Your task to perform on an android device: toggle improve location accuracy Image 0: 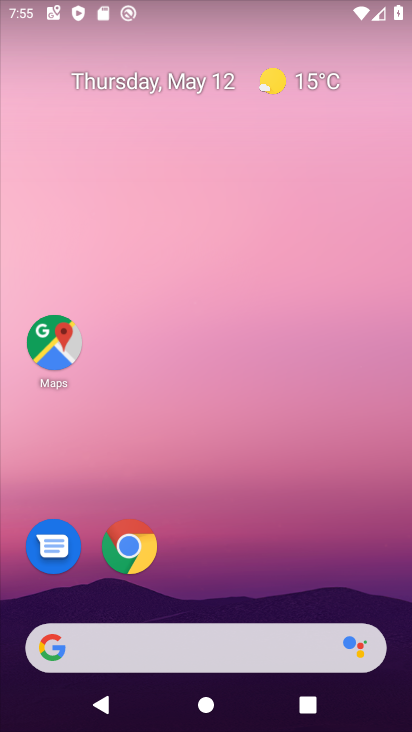
Step 0: press home button
Your task to perform on an android device: toggle improve location accuracy Image 1: 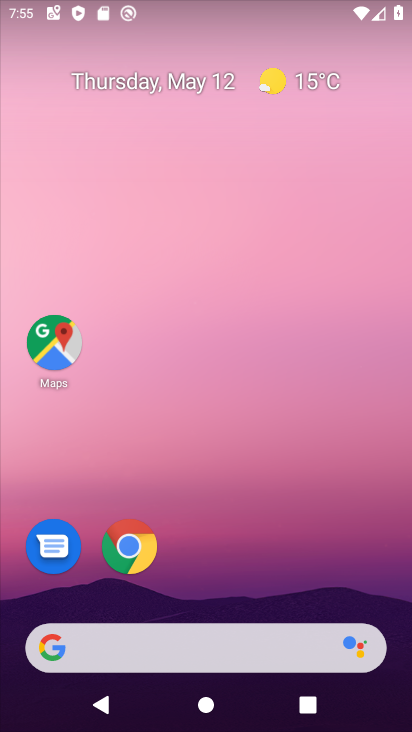
Step 1: drag from (165, 649) to (260, 200)
Your task to perform on an android device: toggle improve location accuracy Image 2: 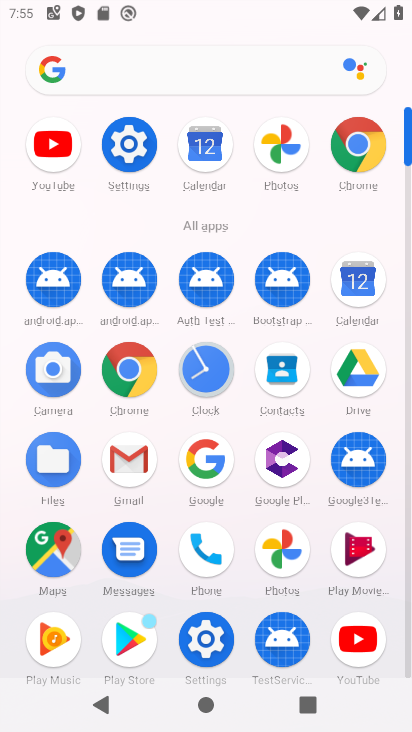
Step 2: click (130, 152)
Your task to perform on an android device: toggle improve location accuracy Image 3: 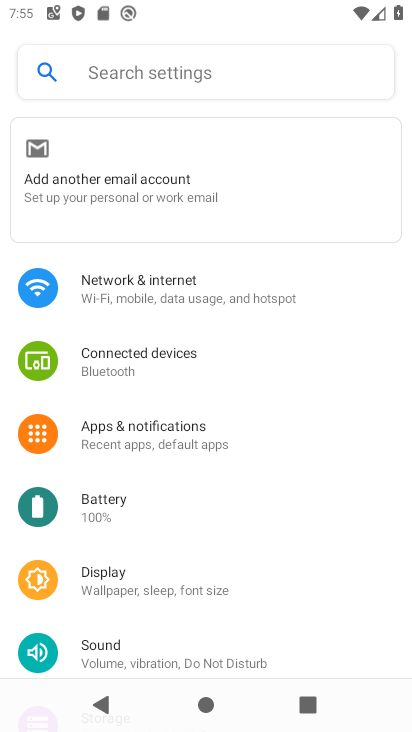
Step 3: drag from (279, 570) to (301, 204)
Your task to perform on an android device: toggle improve location accuracy Image 4: 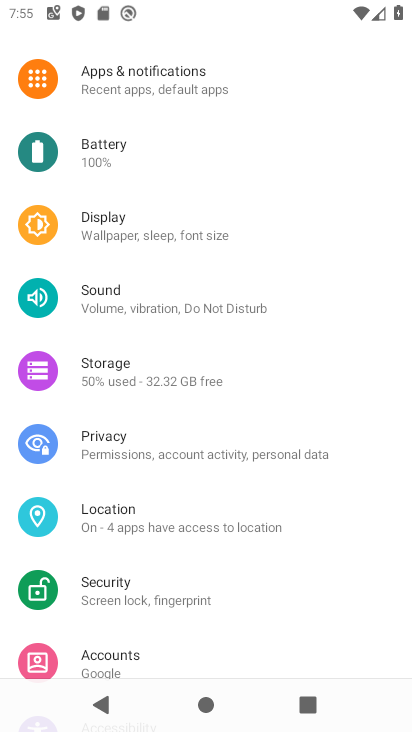
Step 4: click (123, 517)
Your task to perform on an android device: toggle improve location accuracy Image 5: 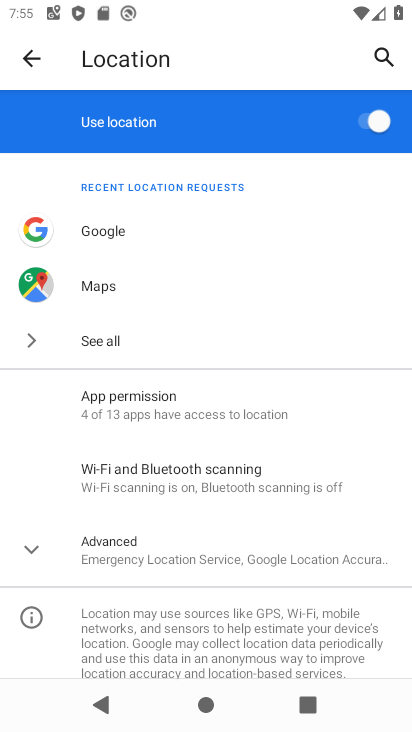
Step 5: click (100, 549)
Your task to perform on an android device: toggle improve location accuracy Image 6: 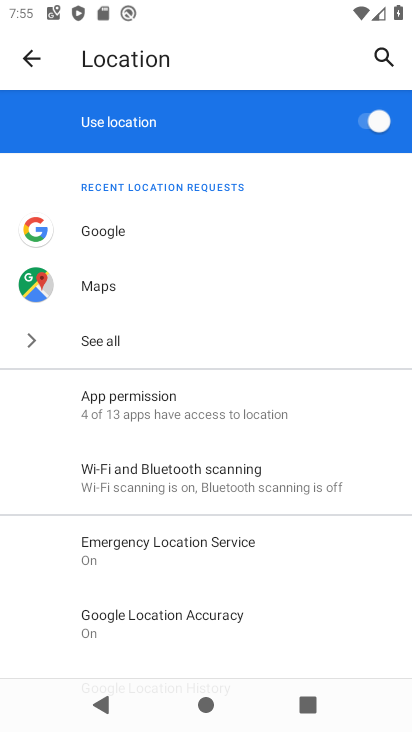
Step 6: click (169, 617)
Your task to perform on an android device: toggle improve location accuracy Image 7: 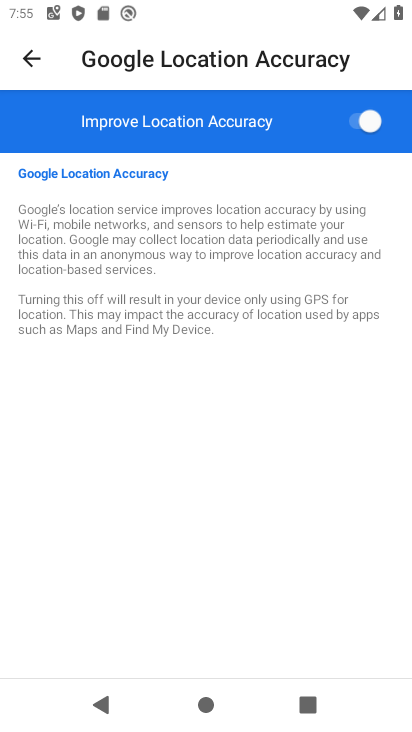
Step 7: click (355, 120)
Your task to perform on an android device: toggle improve location accuracy Image 8: 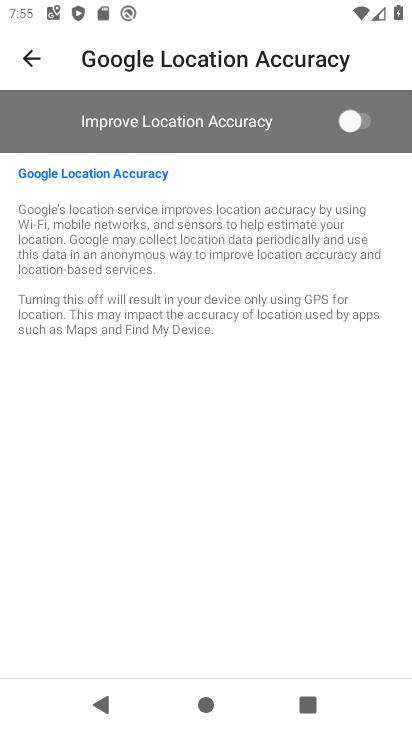
Step 8: task complete